Your task to perform on an android device: add a label to a message in the gmail app Image 0: 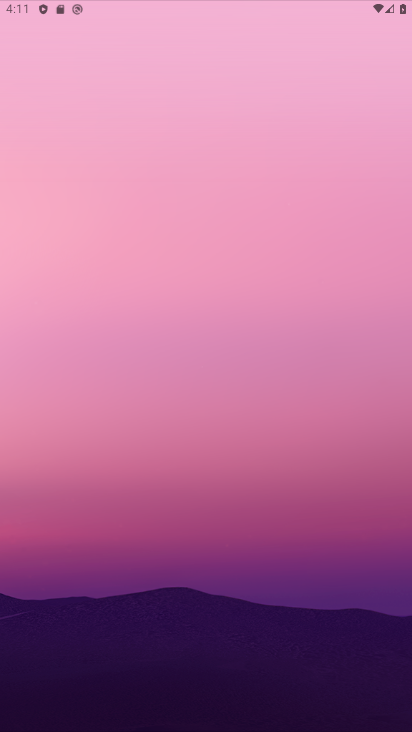
Step 0: press back button
Your task to perform on an android device: add a label to a message in the gmail app Image 1: 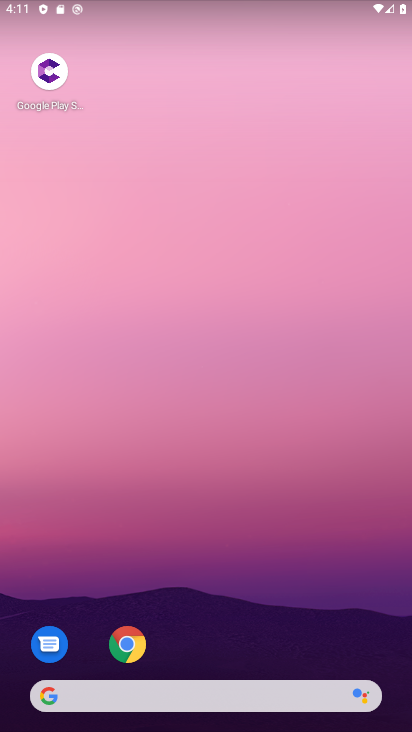
Step 1: drag from (178, 645) to (264, 182)
Your task to perform on an android device: add a label to a message in the gmail app Image 2: 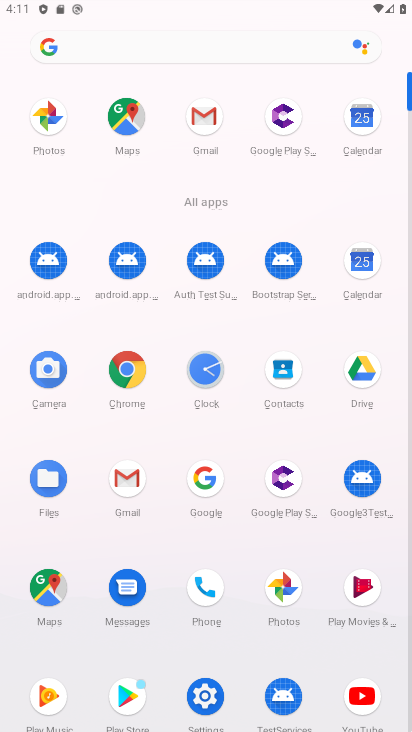
Step 2: click (134, 477)
Your task to perform on an android device: add a label to a message in the gmail app Image 3: 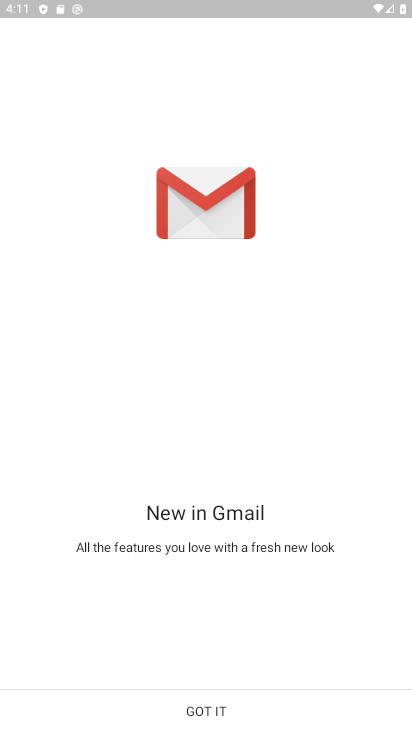
Step 3: click (222, 717)
Your task to perform on an android device: add a label to a message in the gmail app Image 4: 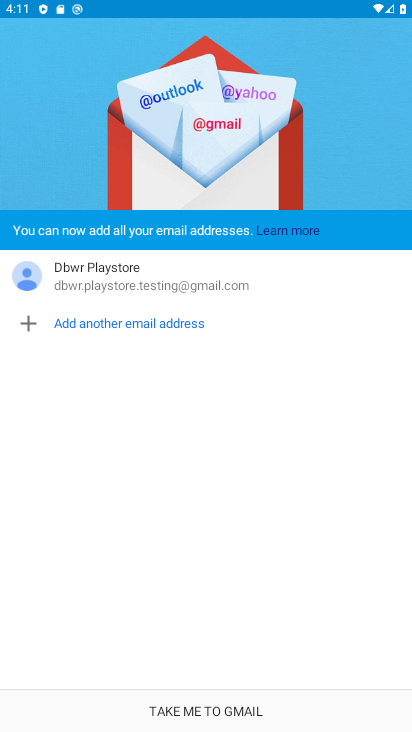
Step 4: click (222, 716)
Your task to perform on an android device: add a label to a message in the gmail app Image 5: 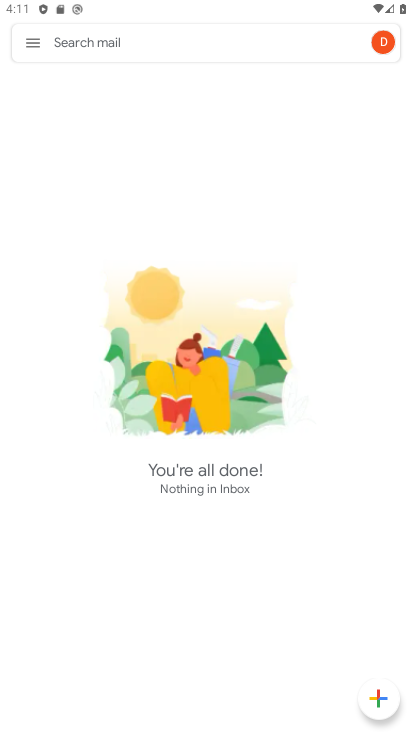
Step 5: click (37, 52)
Your task to perform on an android device: add a label to a message in the gmail app Image 6: 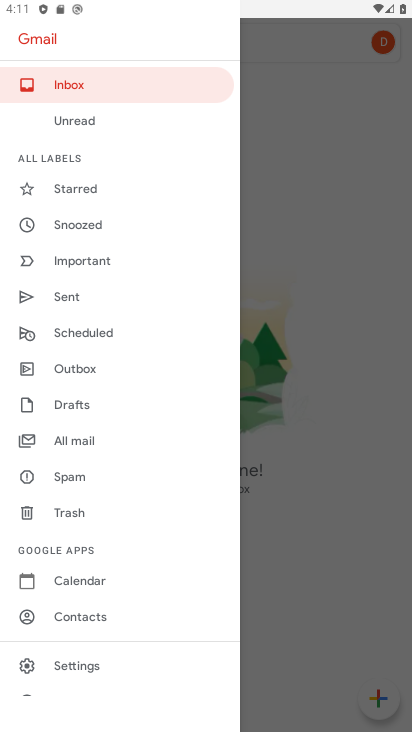
Step 6: click (102, 430)
Your task to perform on an android device: add a label to a message in the gmail app Image 7: 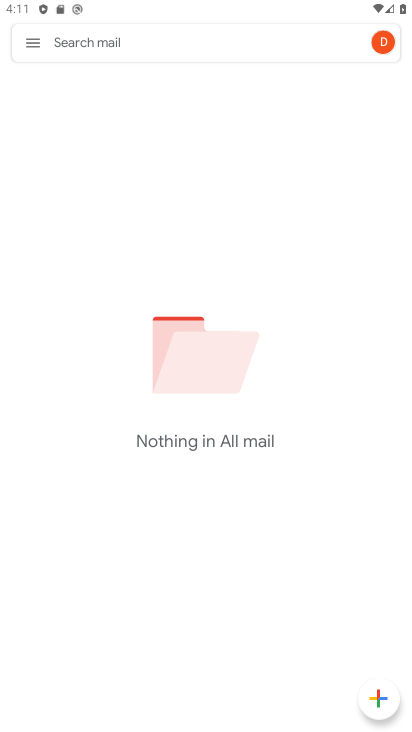
Step 7: task complete